Your task to perform on an android device: Open Chrome and go to settings Image 0: 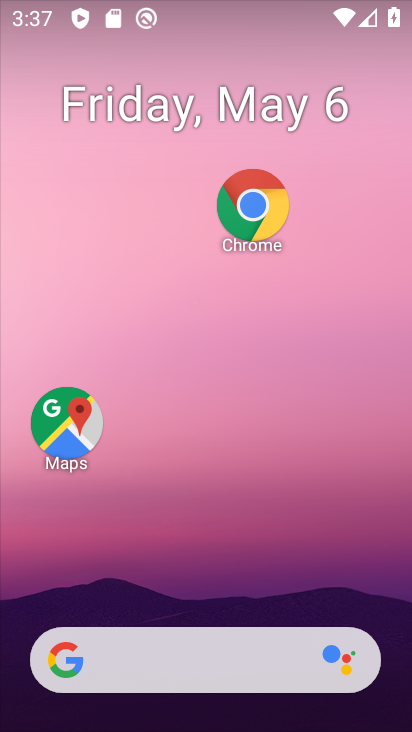
Step 0: drag from (191, 623) to (326, 26)
Your task to perform on an android device: Open Chrome and go to settings Image 1: 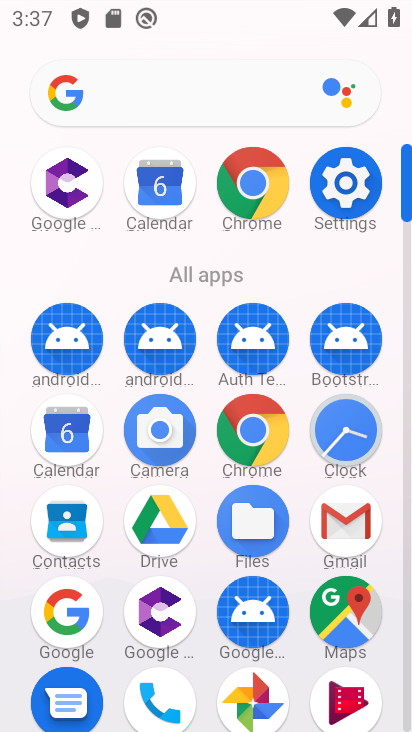
Step 1: click (220, 428)
Your task to perform on an android device: Open Chrome and go to settings Image 2: 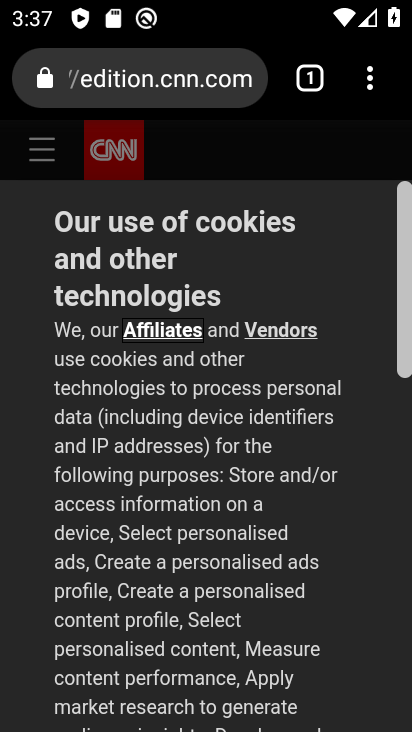
Step 2: click (363, 83)
Your task to perform on an android device: Open Chrome and go to settings Image 3: 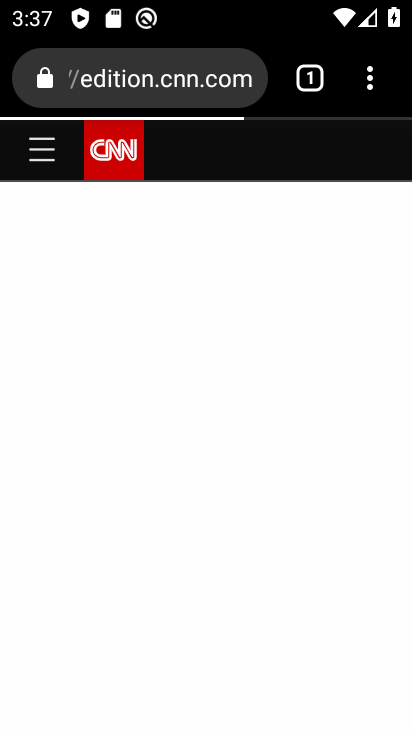
Step 3: click (373, 76)
Your task to perform on an android device: Open Chrome and go to settings Image 4: 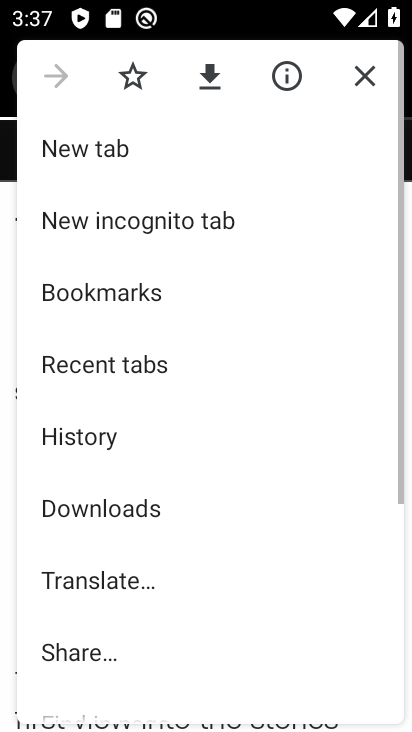
Step 4: drag from (234, 464) to (187, 2)
Your task to perform on an android device: Open Chrome and go to settings Image 5: 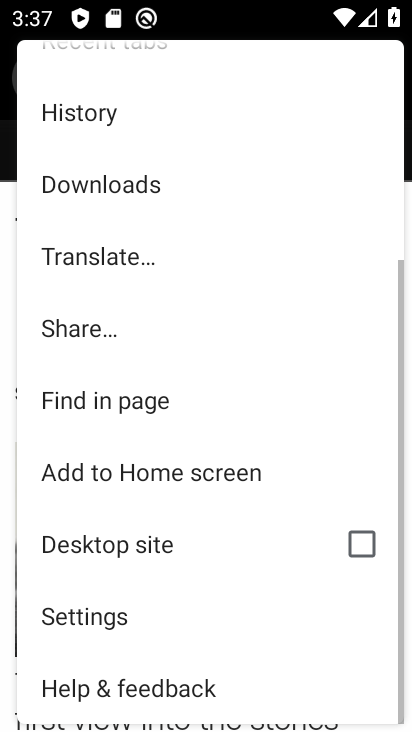
Step 5: click (127, 640)
Your task to perform on an android device: Open Chrome and go to settings Image 6: 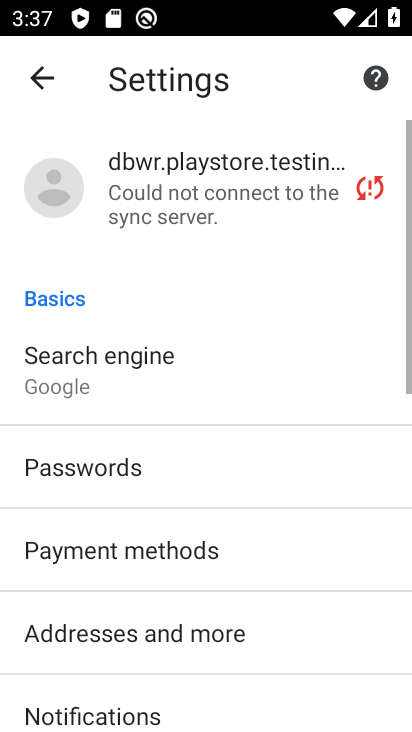
Step 6: task complete